Your task to perform on an android device: check battery use Image 0: 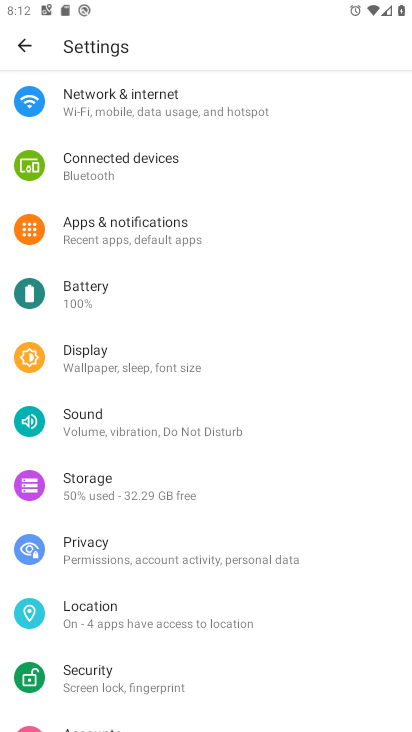
Step 0: click (104, 302)
Your task to perform on an android device: check battery use Image 1: 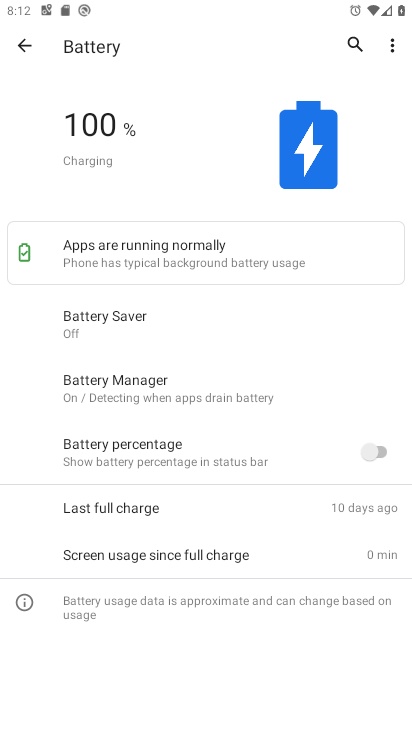
Step 1: task complete